Your task to perform on an android device: add a label to a message in the gmail app Image 0: 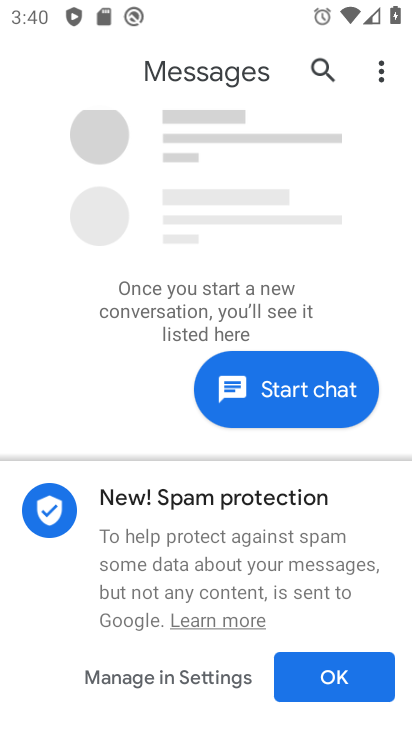
Step 0: click (256, 310)
Your task to perform on an android device: add a label to a message in the gmail app Image 1: 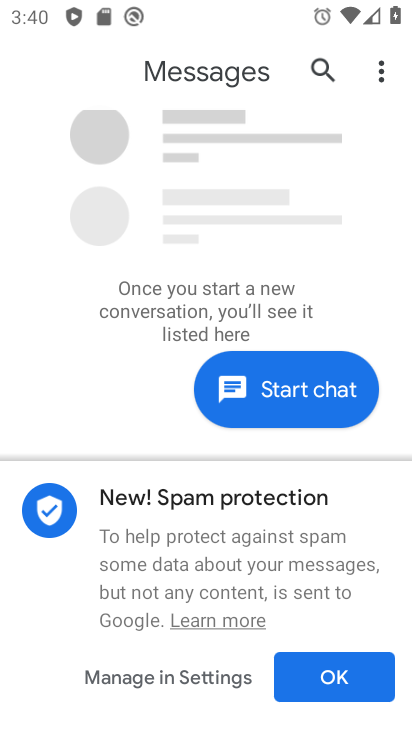
Step 1: task complete